Your task to perform on an android device: check google app version Image 0: 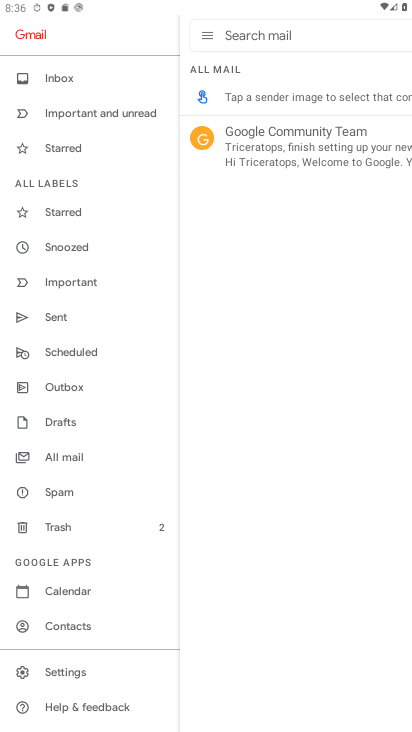
Step 0: press home button
Your task to perform on an android device: check google app version Image 1: 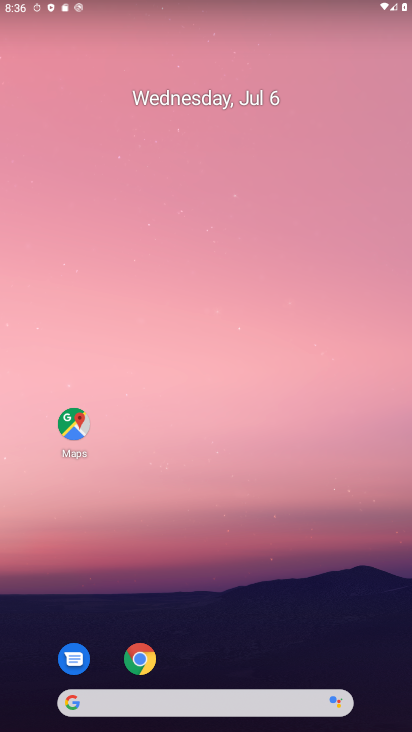
Step 1: drag from (361, 629) to (376, 293)
Your task to perform on an android device: check google app version Image 2: 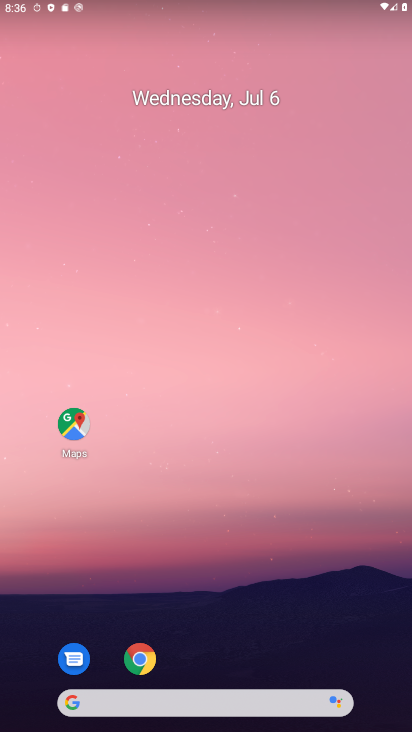
Step 2: drag from (380, 629) to (401, 67)
Your task to perform on an android device: check google app version Image 3: 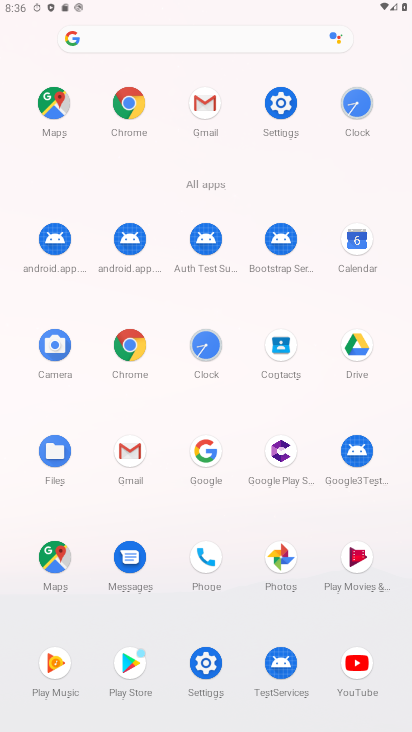
Step 3: click (204, 460)
Your task to perform on an android device: check google app version Image 4: 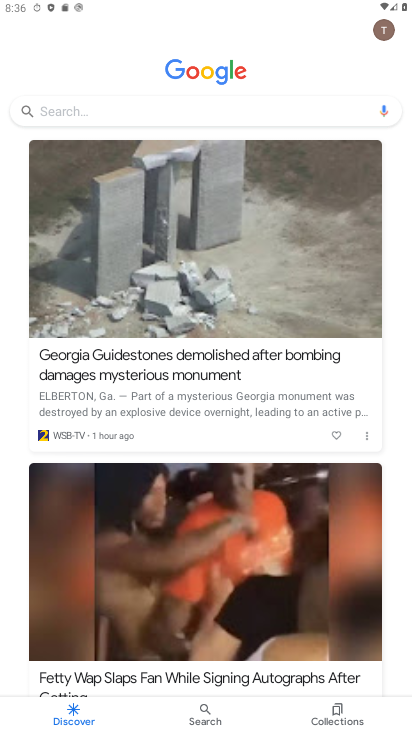
Step 4: click (390, 30)
Your task to perform on an android device: check google app version Image 5: 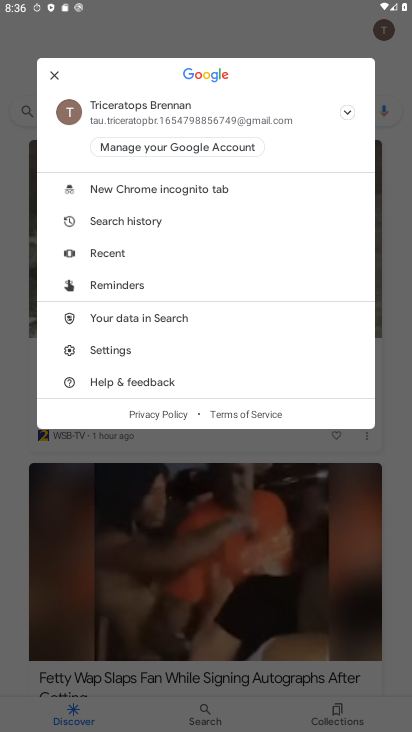
Step 5: click (137, 349)
Your task to perform on an android device: check google app version Image 6: 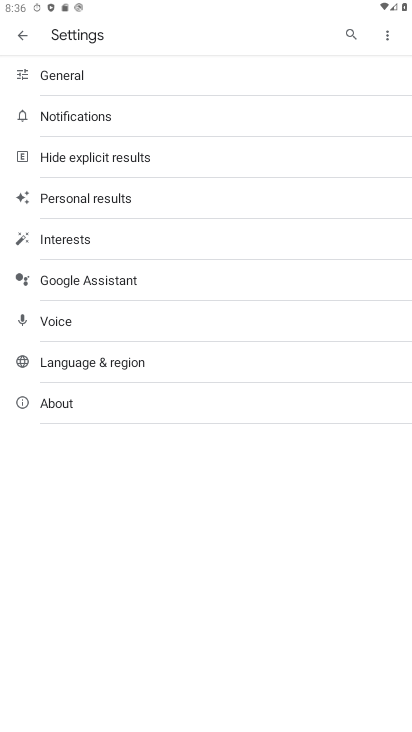
Step 6: click (101, 402)
Your task to perform on an android device: check google app version Image 7: 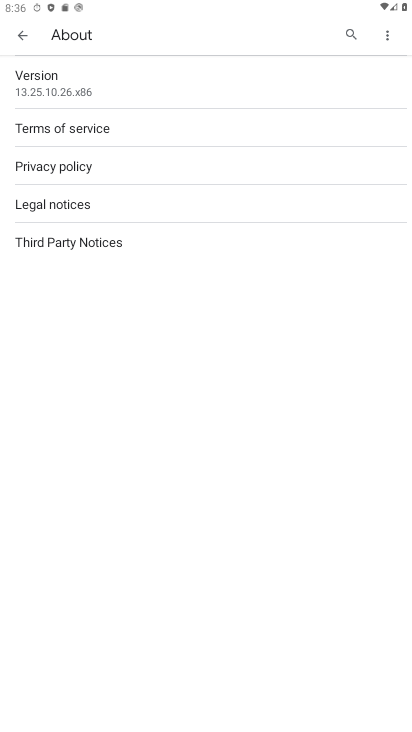
Step 7: task complete